Your task to perform on an android device: Open the map Image 0: 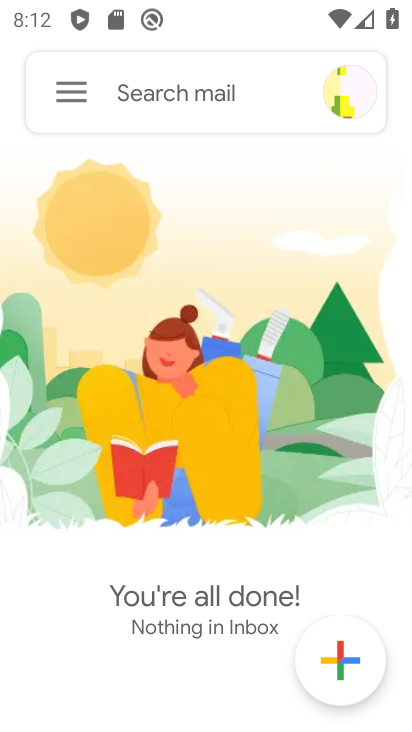
Step 0: press home button
Your task to perform on an android device: Open the map Image 1: 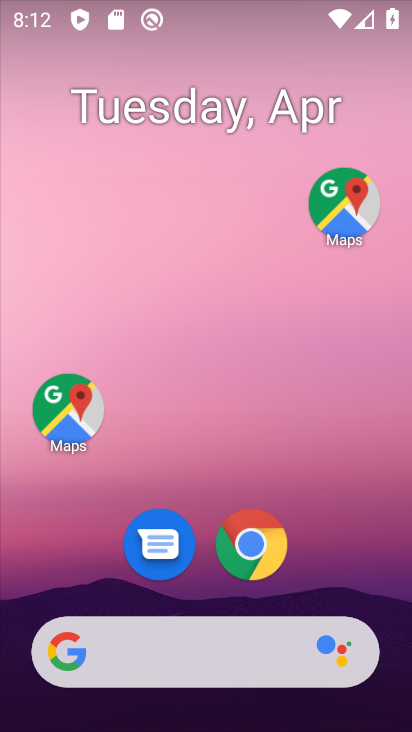
Step 1: drag from (204, 606) to (341, 117)
Your task to perform on an android device: Open the map Image 2: 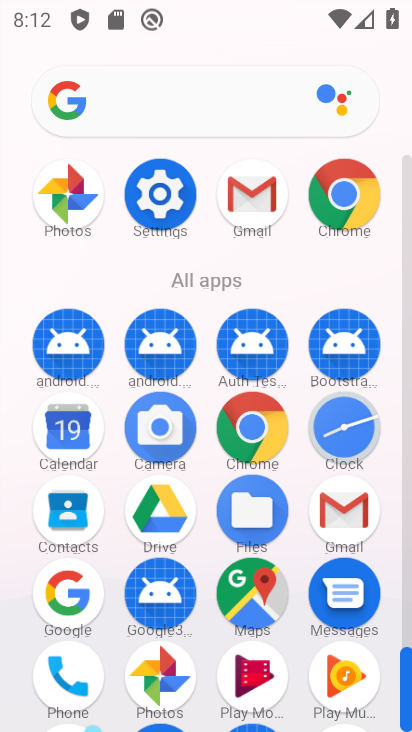
Step 2: click (253, 603)
Your task to perform on an android device: Open the map Image 3: 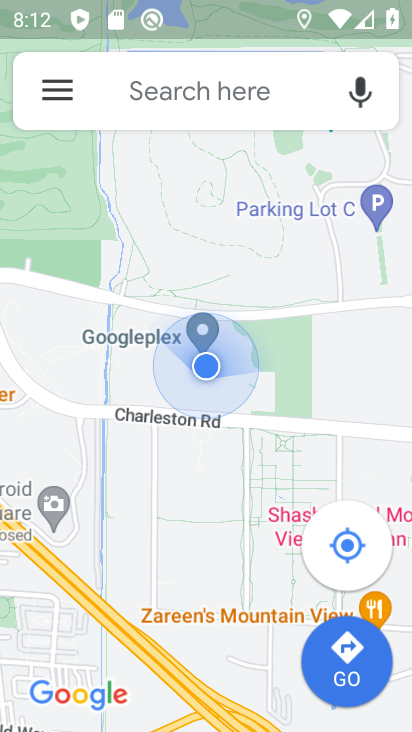
Step 3: task complete